Your task to perform on an android device: change alarm snooze length Image 0: 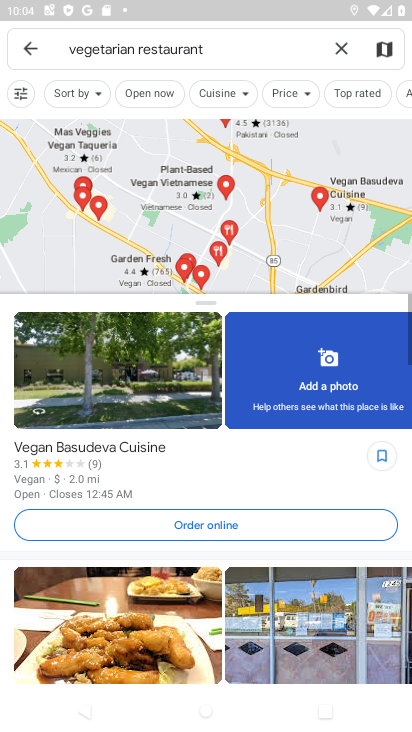
Step 0: press home button
Your task to perform on an android device: change alarm snooze length Image 1: 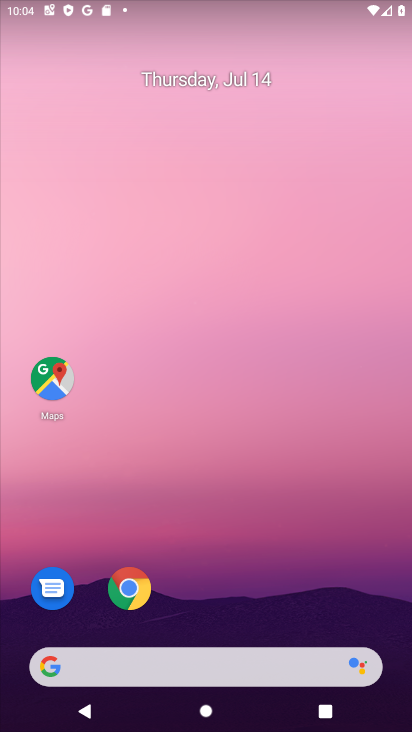
Step 1: drag from (180, 667) to (307, 67)
Your task to perform on an android device: change alarm snooze length Image 2: 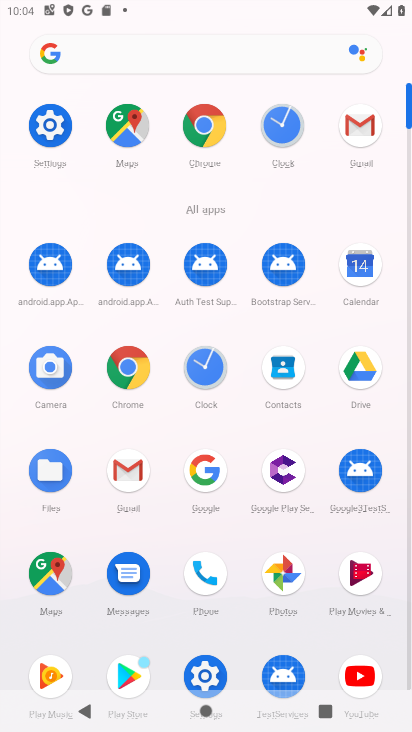
Step 2: click (201, 368)
Your task to perform on an android device: change alarm snooze length Image 3: 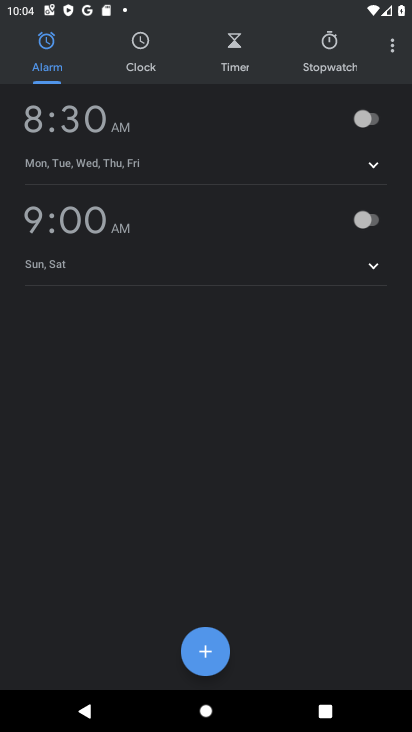
Step 3: click (393, 47)
Your task to perform on an android device: change alarm snooze length Image 4: 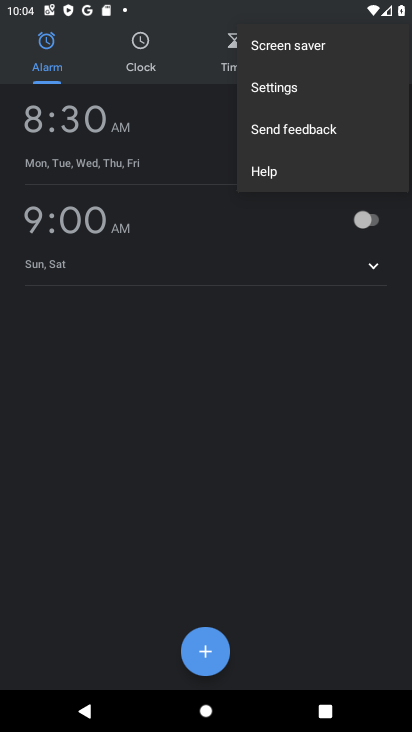
Step 4: click (291, 89)
Your task to perform on an android device: change alarm snooze length Image 5: 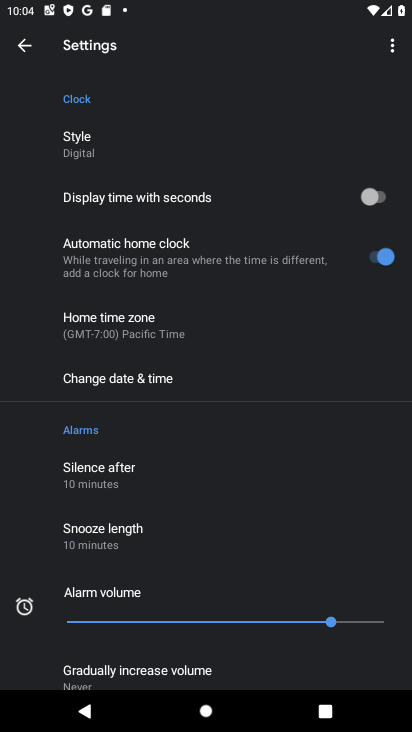
Step 5: click (108, 533)
Your task to perform on an android device: change alarm snooze length Image 6: 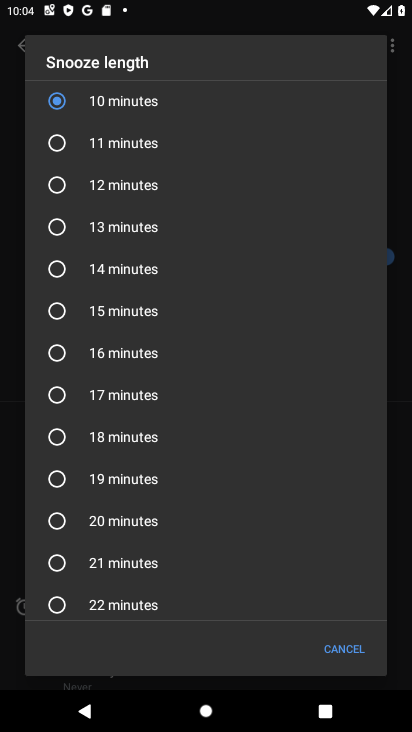
Step 6: click (60, 310)
Your task to perform on an android device: change alarm snooze length Image 7: 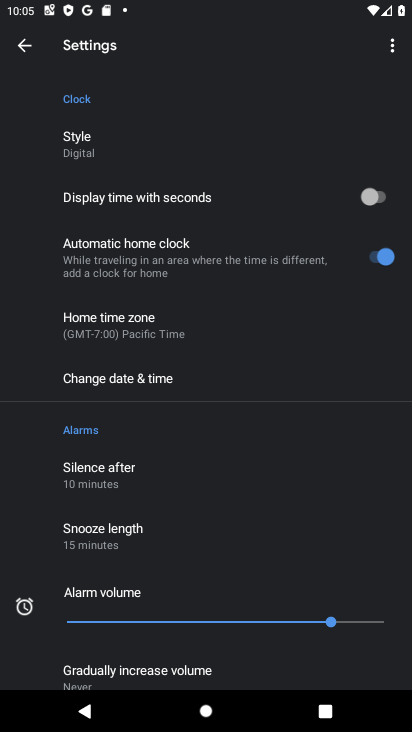
Step 7: task complete